Your task to perform on an android device: visit the assistant section in the google photos Image 0: 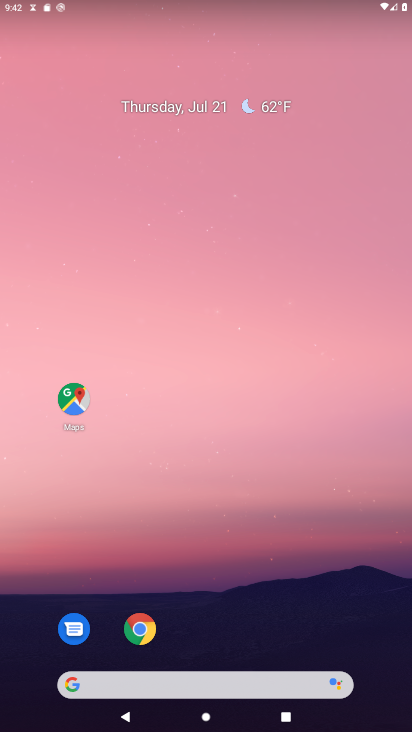
Step 0: drag from (234, 618) to (228, 141)
Your task to perform on an android device: visit the assistant section in the google photos Image 1: 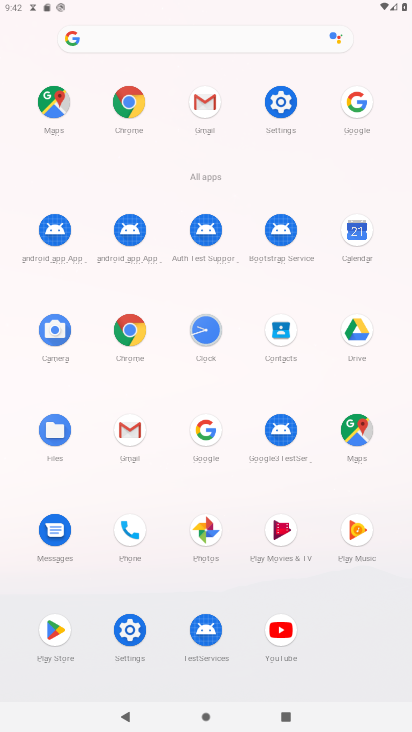
Step 1: click (208, 523)
Your task to perform on an android device: visit the assistant section in the google photos Image 2: 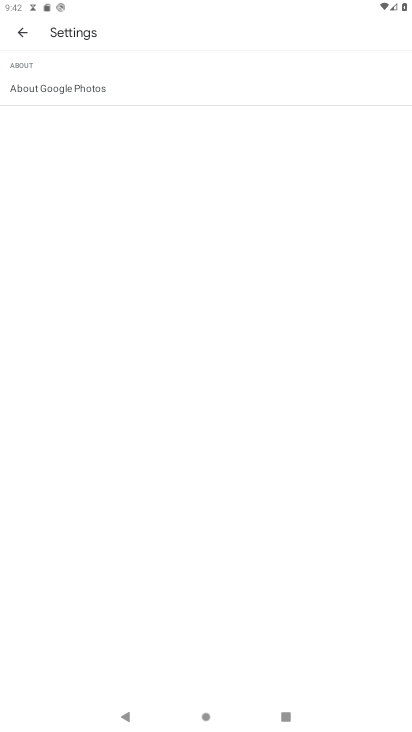
Step 2: click (29, 33)
Your task to perform on an android device: visit the assistant section in the google photos Image 3: 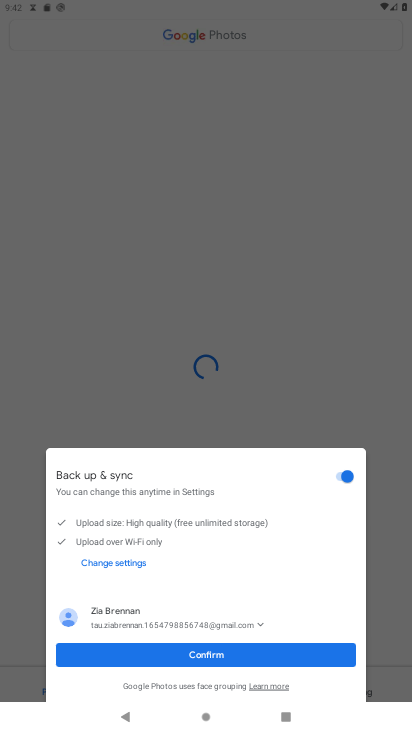
Step 3: click (177, 685)
Your task to perform on an android device: visit the assistant section in the google photos Image 4: 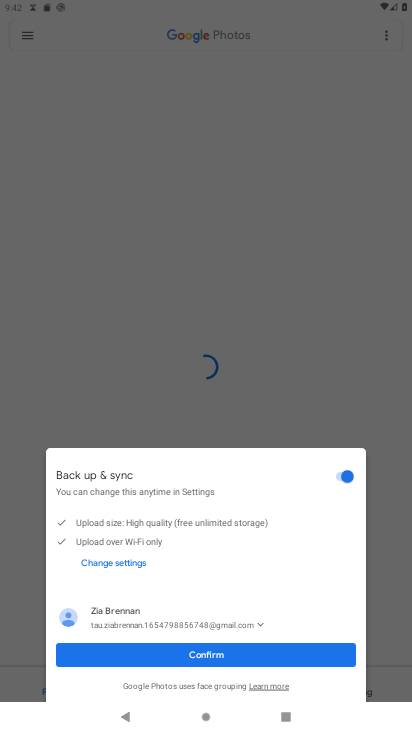
Step 4: click (212, 643)
Your task to perform on an android device: visit the assistant section in the google photos Image 5: 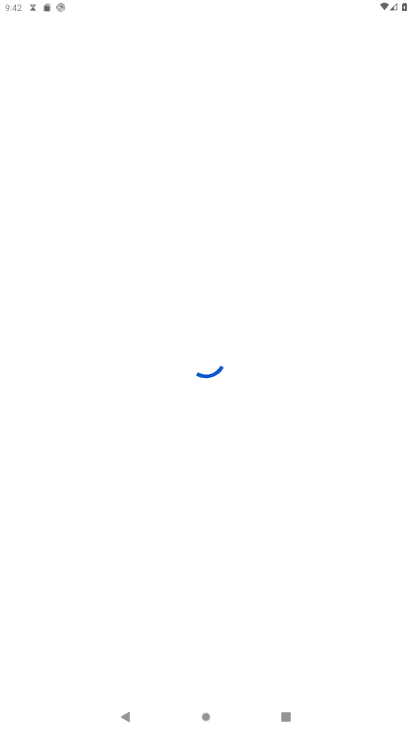
Step 5: click (128, 714)
Your task to perform on an android device: visit the assistant section in the google photos Image 6: 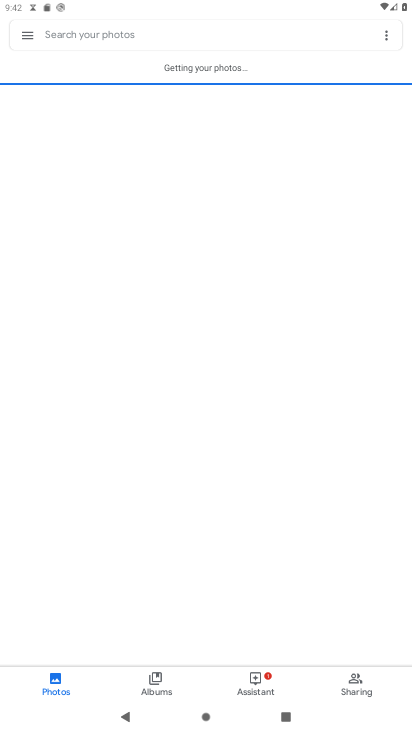
Step 6: click (159, 677)
Your task to perform on an android device: visit the assistant section in the google photos Image 7: 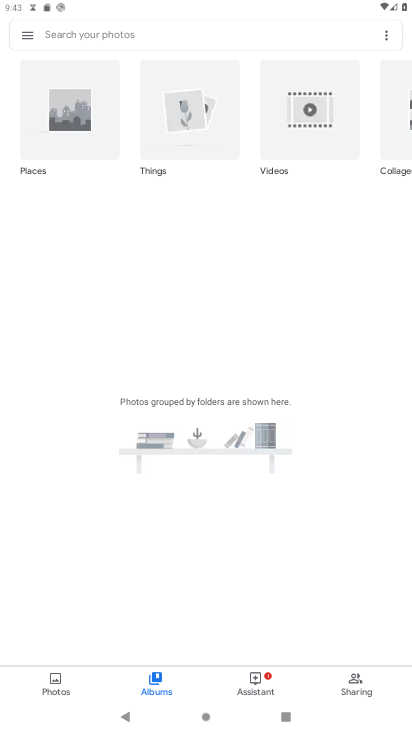
Step 7: click (55, 683)
Your task to perform on an android device: visit the assistant section in the google photos Image 8: 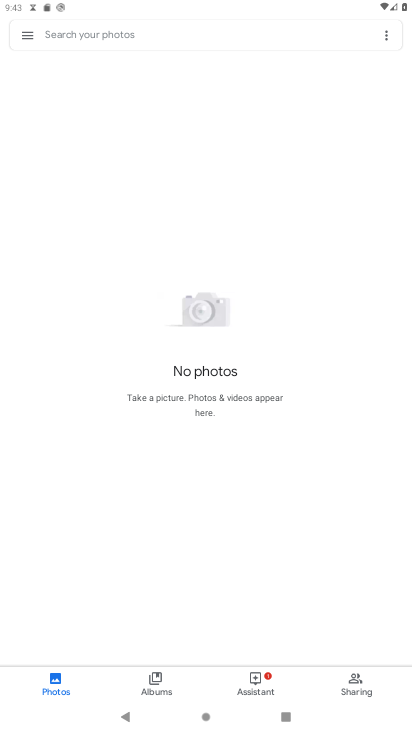
Step 8: click (164, 671)
Your task to perform on an android device: visit the assistant section in the google photos Image 9: 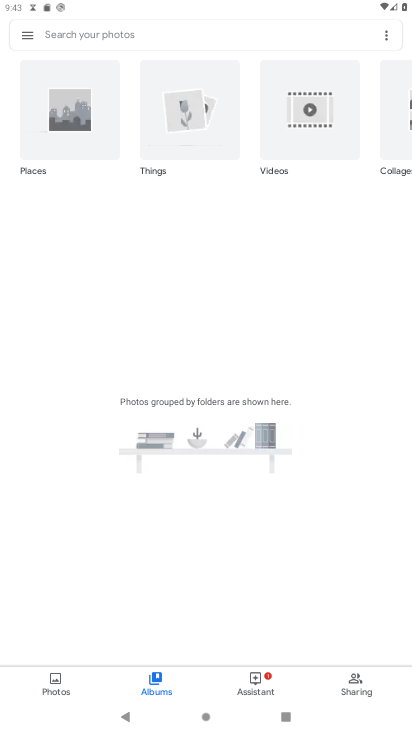
Step 9: click (62, 694)
Your task to perform on an android device: visit the assistant section in the google photos Image 10: 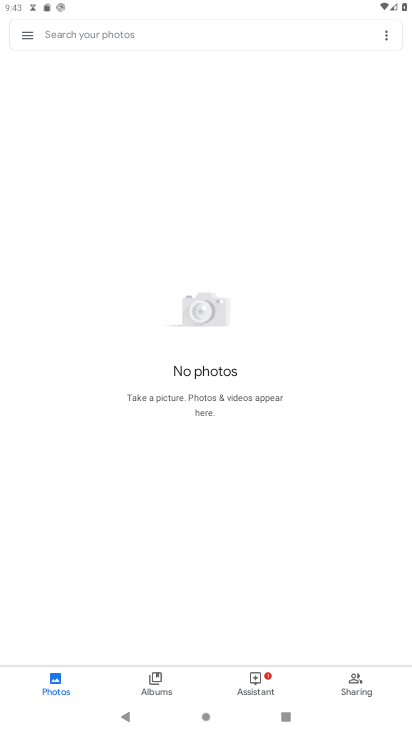
Step 10: click (254, 683)
Your task to perform on an android device: visit the assistant section in the google photos Image 11: 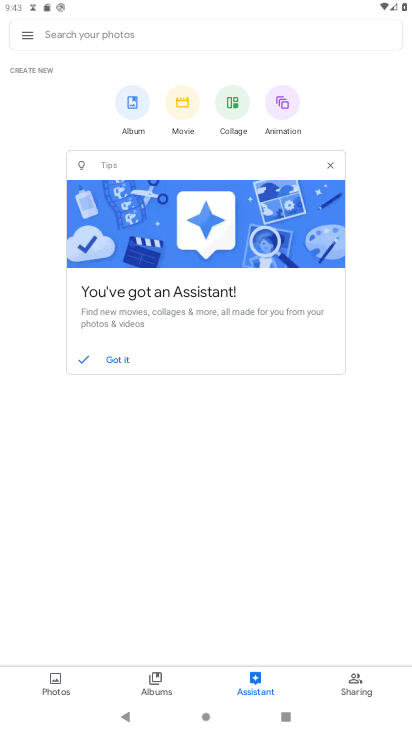
Step 11: task complete